Your task to perform on an android device: Open Reddit.com Image 0: 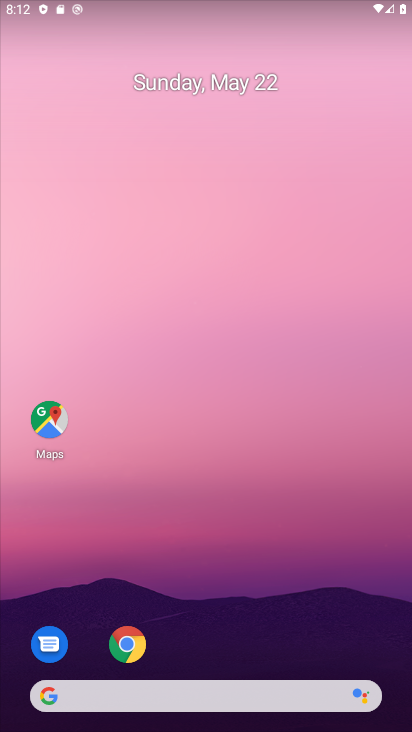
Step 0: click (153, 637)
Your task to perform on an android device: Open Reddit.com Image 1: 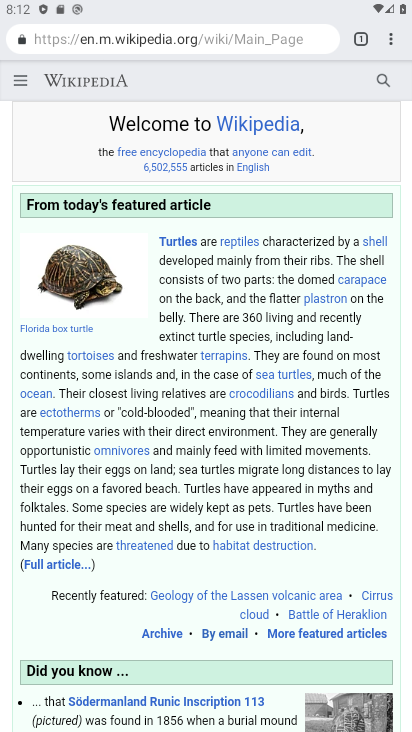
Step 1: click (202, 31)
Your task to perform on an android device: Open Reddit.com Image 2: 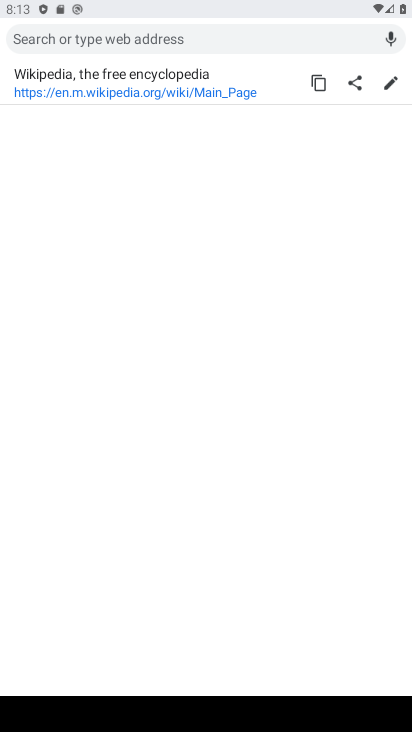
Step 2: type "reddit.com"
Your task to perform on an android device: Open Reddit.com Image 3: 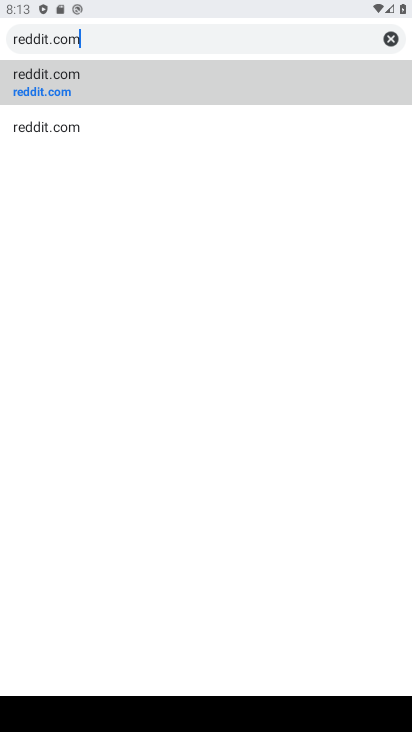
Step 3: click (126, 96)
Your task to perform on an android device: Open Reddit.com Image 4: 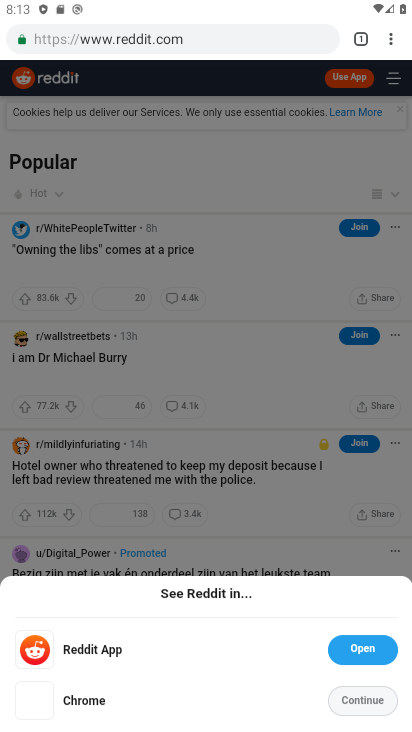
Step 4: task complete